Your task to perform on an android device: check storage Image 0: 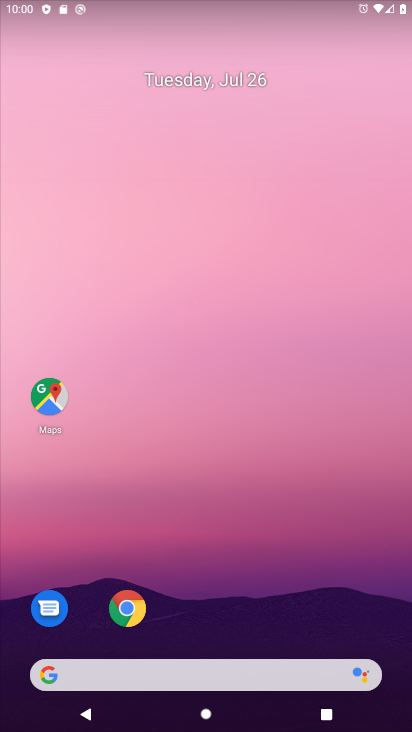
Step 0: drag from (228, 703) to (230, 82)
Your task to perform on an android device: check storage Image 1: 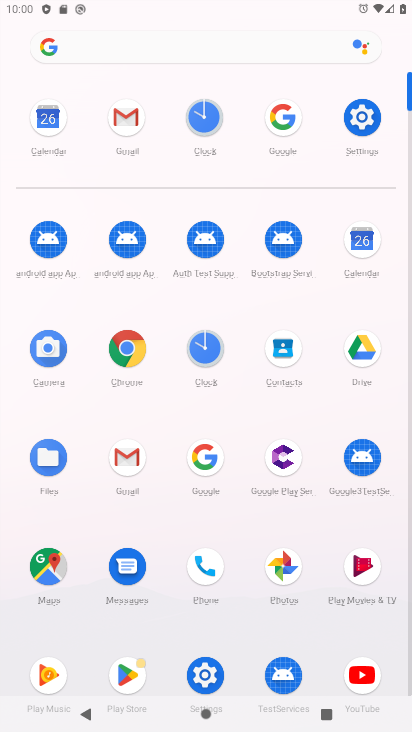
Step 1: click (359, 113)
Your task to perform on an android device: check storage Image 2: 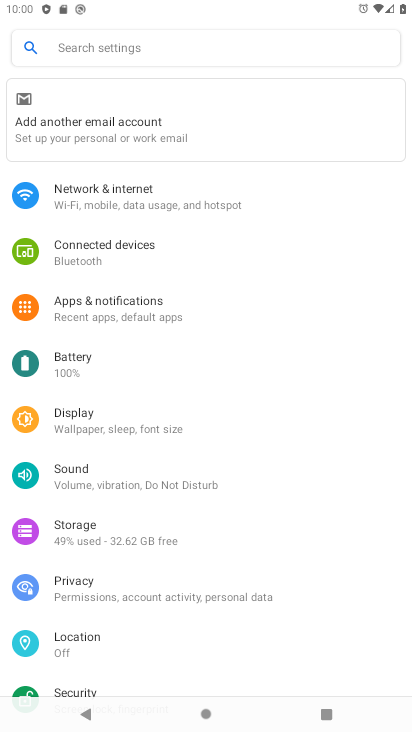
Step 2: click (86, 536)
Your task to perform on an android device: check storage Image 3: 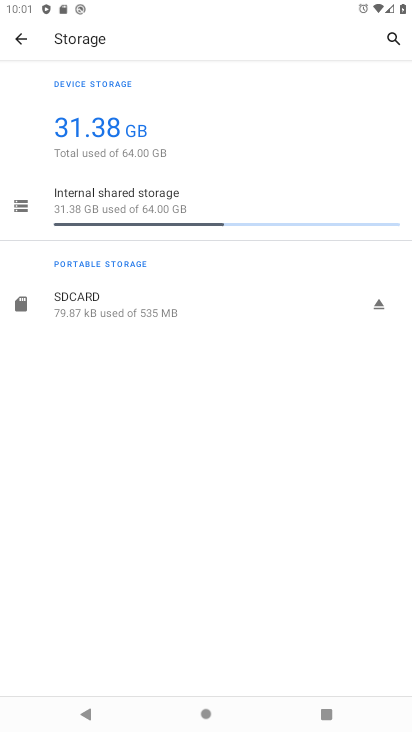
Step 3: task complete